Your task to perform on an android device: move a message to another label in the gmail app Image 0: 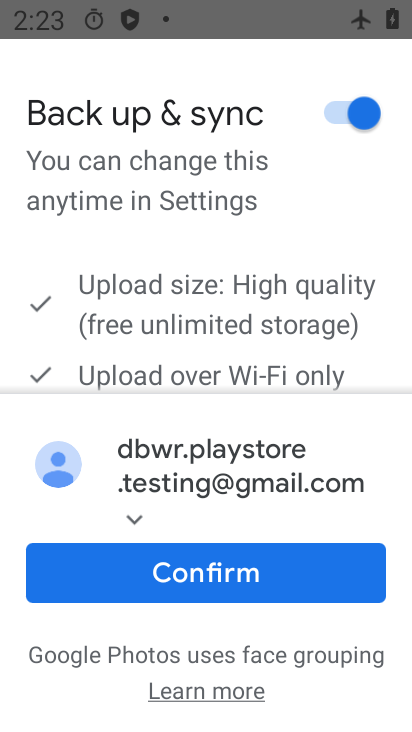
Step 0: press home button
Your task to perform on an android device: move a message to another label in the gmail app Image 1: 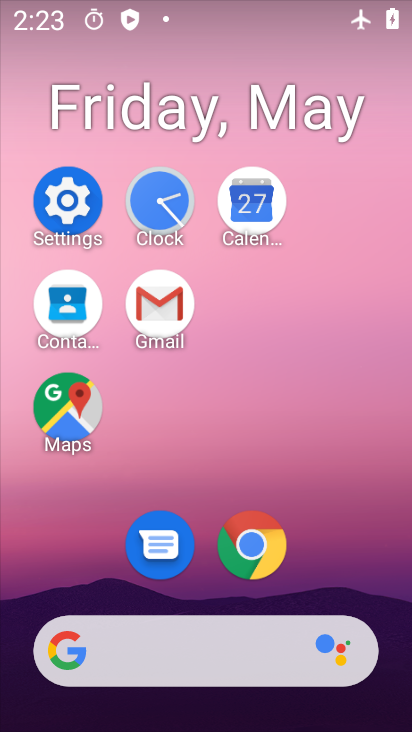
Step 1: click (173, 310)
Your task to perform on an android device: move a message to another label in the gmail app Image 2: 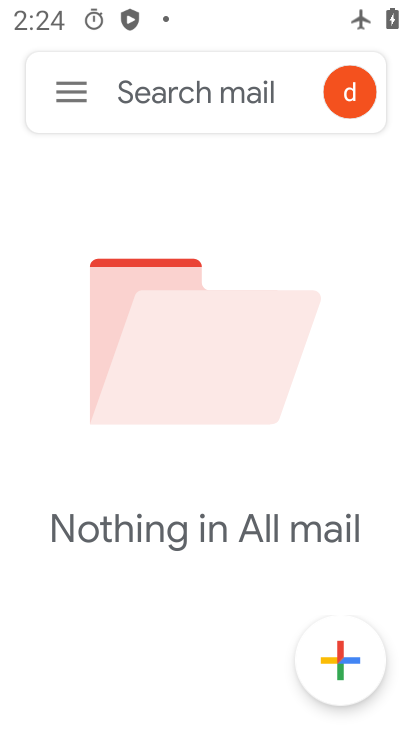
Step 2: click (52, 99)
Your task to perform on an android device: move a message to another label in the gmail app Image 3: 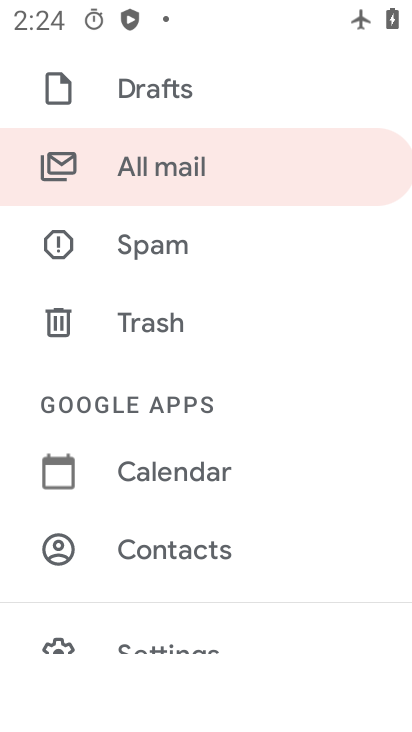
Step 3: click (264, 157)
Your task to perform on an android device: move a message to another label in the gmail app Image 4: 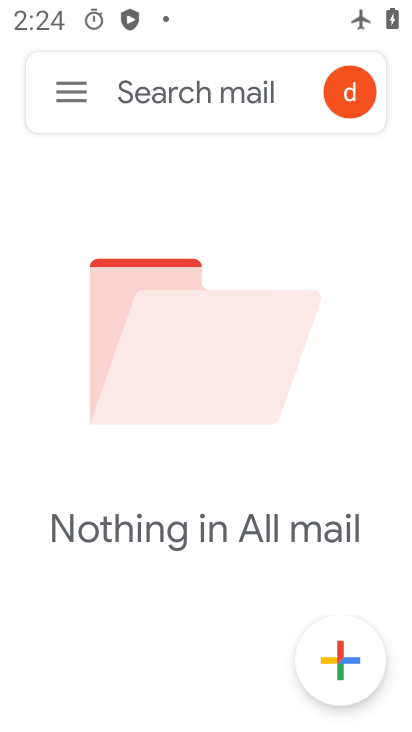
Step 4: task complete